Your task to perform on an android device: Go to accessibility settings Image 0: 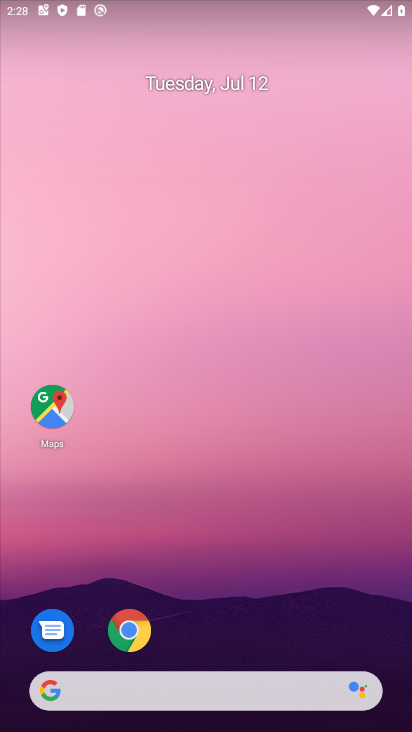
Step 0: drag from (377, 643) to (289, 162)
Your task to perform on an android device: Go to accessibility settings Image 1: 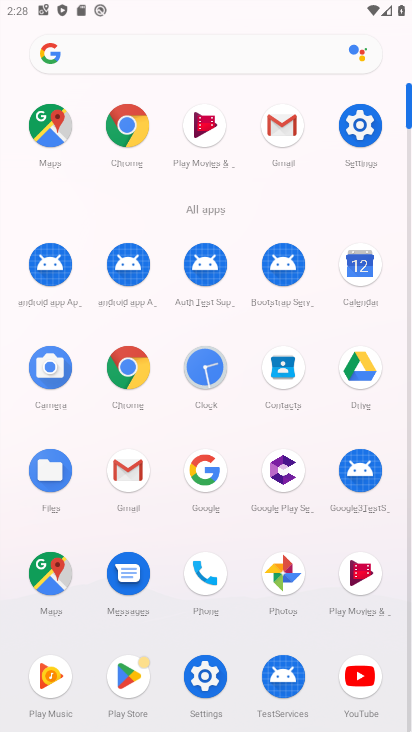
Step 1: click (204, 676)
Your task to perform on an android device: Go to accessibility settings Image 2: 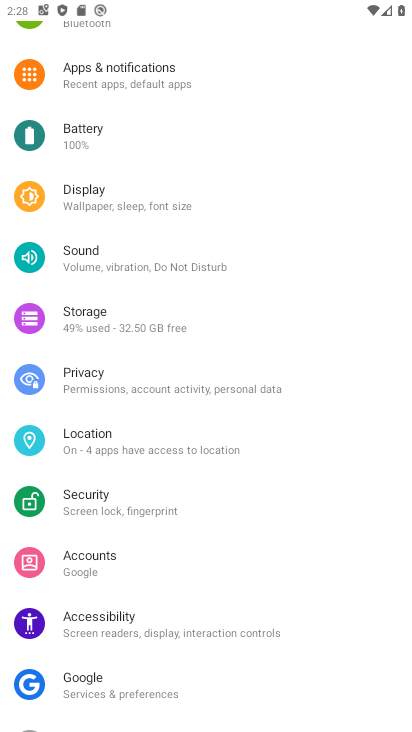
Step 2: click (75, 623)
Your task to perform on an android device: Go to accessibility settings Image 3: 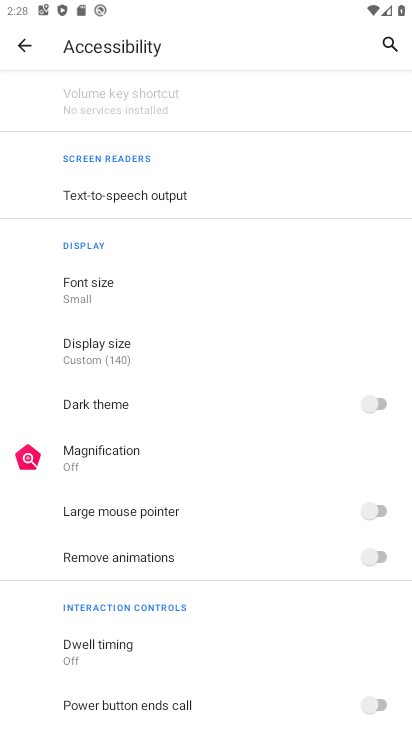
Step 3: task complete